Your task to perform on an android device: refresh tabs in the chrome app Image 0: 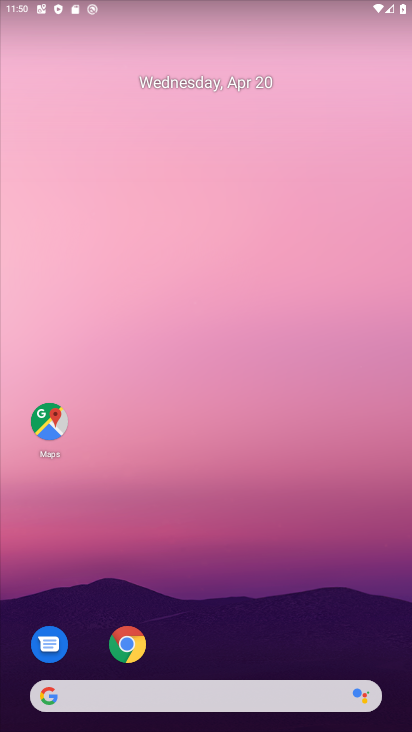
Step 0: click (126, 642)
Your task to perform on an android device: refresh tabs in the chrome app Image 1: 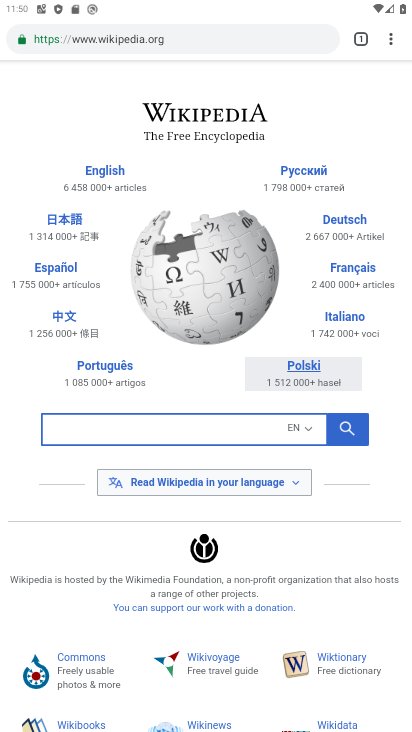
Step 1: click (390, 38)
Your task to perform on an android device: refresh tabs in the chrome app Image 2: 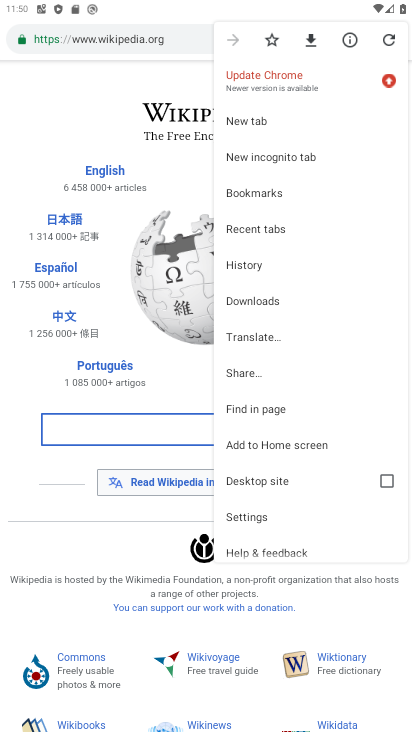
Step 2: click (387, 37)
Your task to perform on an android device: refresh tabs in the chrome app Image 3: 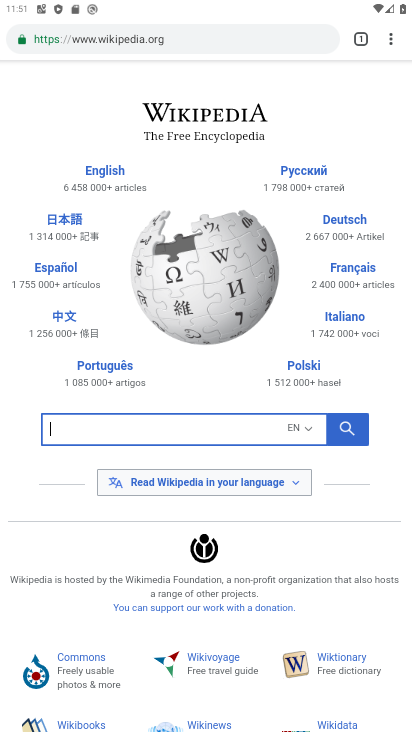
Step 3: task complete